Your task to perform on an android device: change the clock display to analog Image 0: 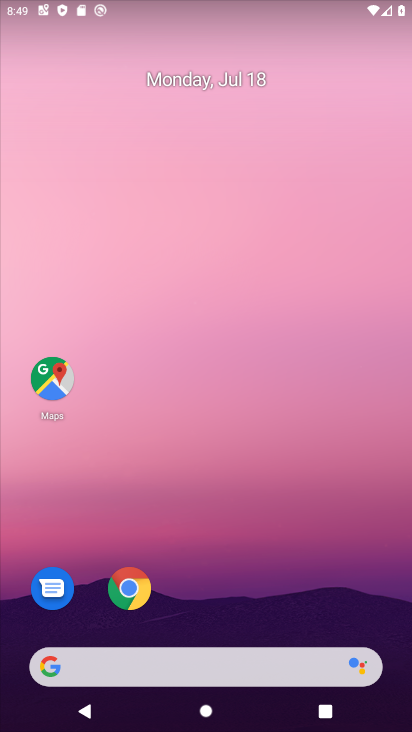
Step 0: drag from (265, 577) to (235, 32)
Your task to perform on an android device: change the clock display to analog Image 1: 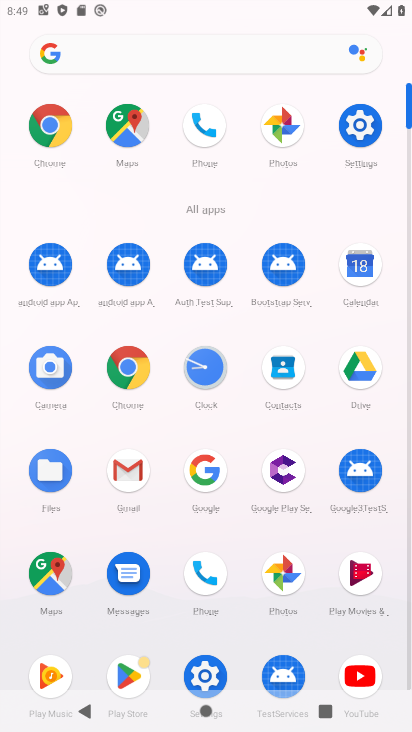
Step 1: click (210, 367)
Your task to perform on an android device: change the clock display to analog Image 2: 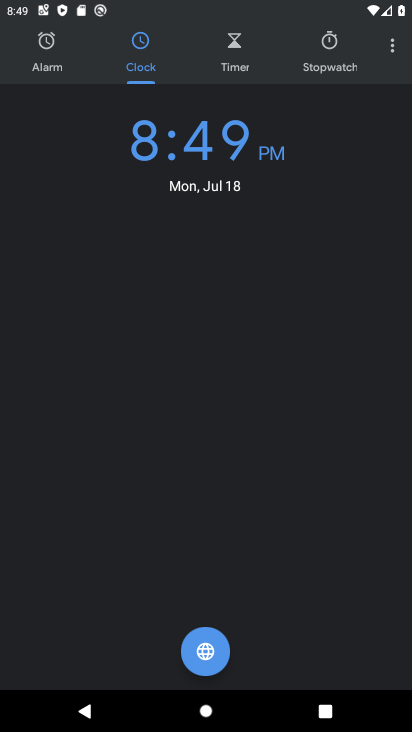
Step 2: click (393, 41)
Your task to perform on an android device: change the clock display to analog Image 3: 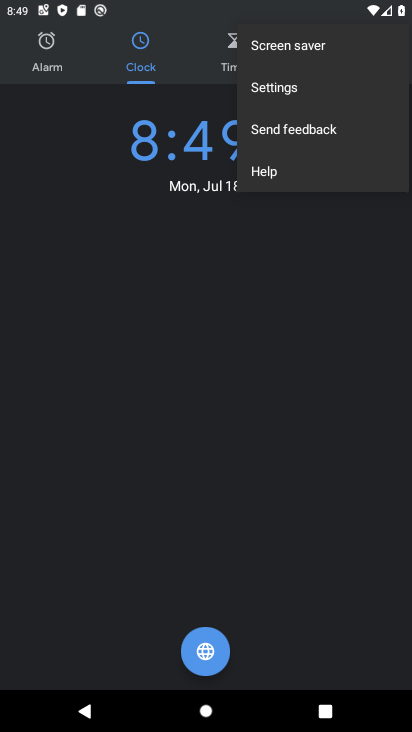
Step 3: click (299, 77)
Your task to perform on an android device: change the clock display to analog Image 4: 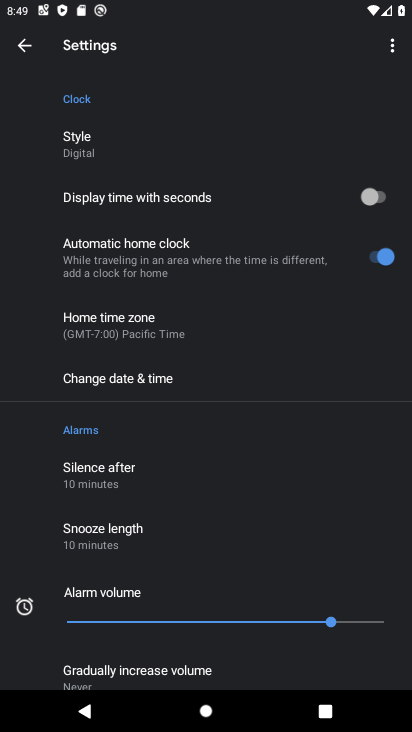
Step 4: click (73, 156)
Your task to perform on an android device: change the clock display to analog Image 5: 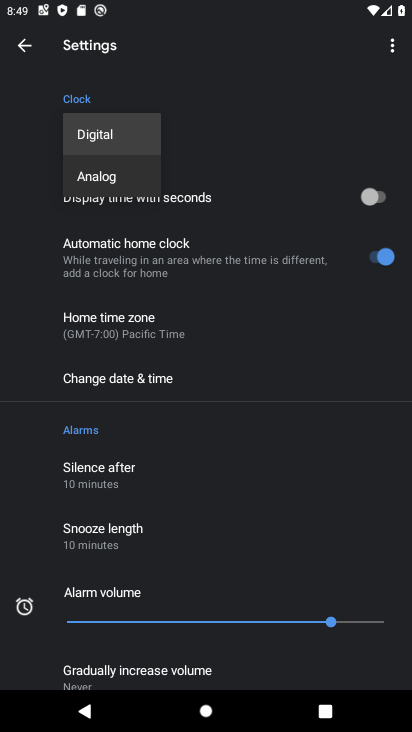
Step 5: click (112, 181)
Your task to perform on an android device: change the clock display to analog Image 6: 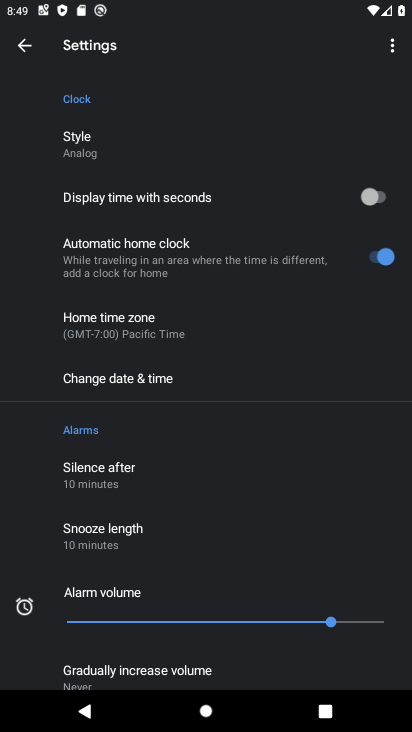
Step 6: task complete